Your task to perform on an android device: empty trash in google photos Image 0: 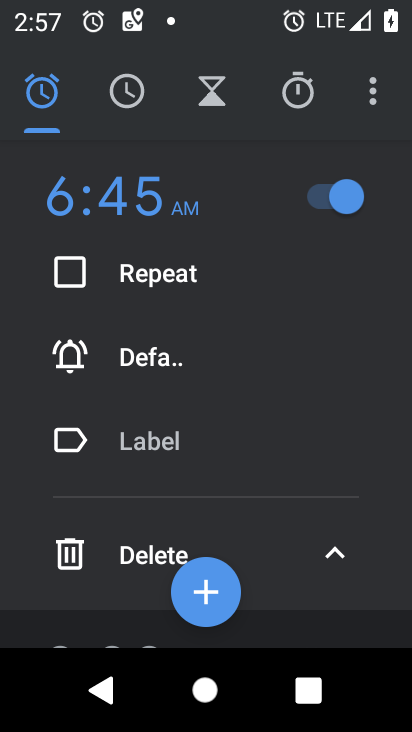
Step 0: press home button
Your task to perform on an android device: empty trash in google photos Image 1: 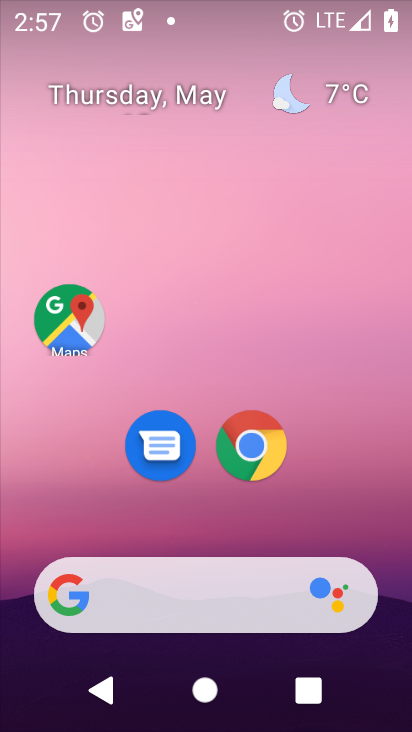
Step 1: drag from (373, 518) to (411, 523)
Your task to perform on an android device: empty trash in google photos Image 2: 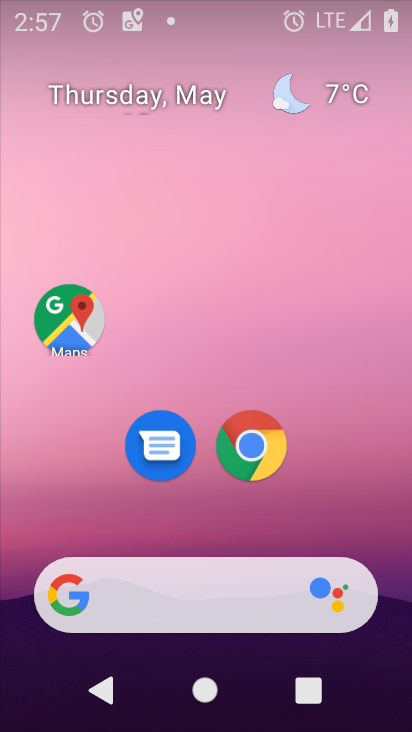
Step 2: drag from (403, 515) to (409, 308)
Your task to perform on an android device: empty trash in google photos Image 3: 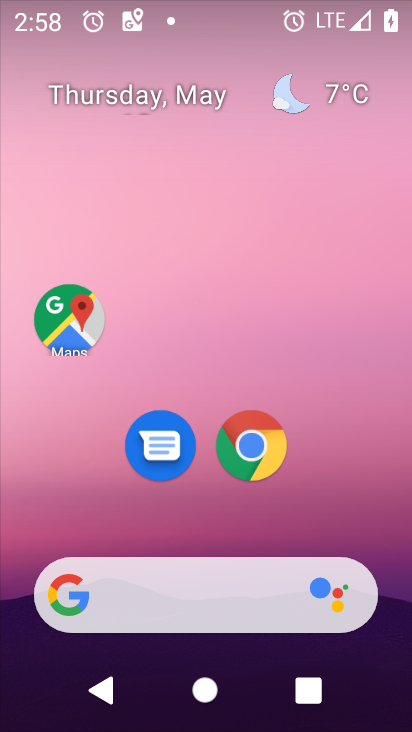
Step 3: drag from (387, 529) to (361, 0)
Your task to perform on an android device: empty trash in google photos Image 4: 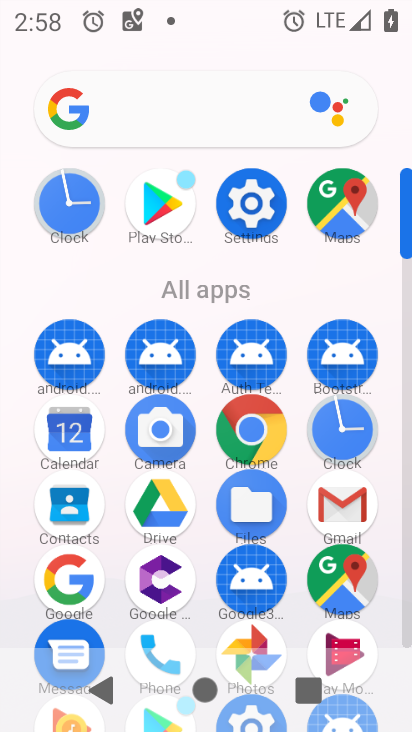
Step 4: drag from (404, 496) to (404, 407)
Your task to perform on an android device: empty trash in google photos Image 5: 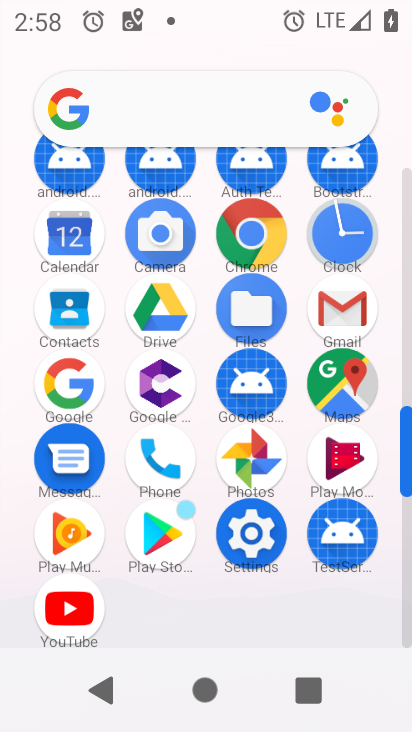
Step 5: click (262, 452)
Your task to perform on an android device: empty trash in google photos Image 6: 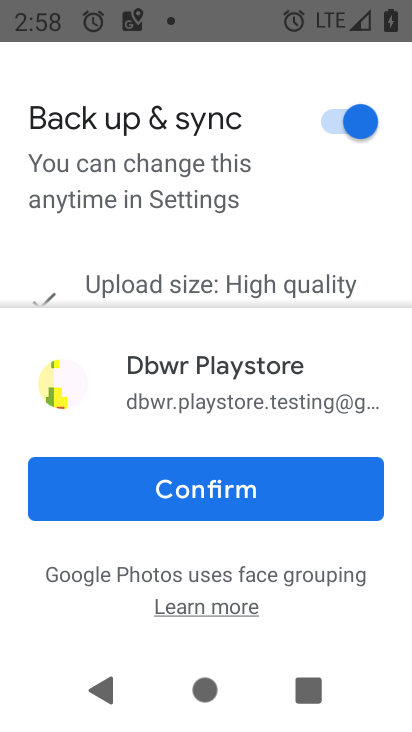
Step 6: click (233, 491)
Your task to perform on an android device: empty trash in google photos Image 7: 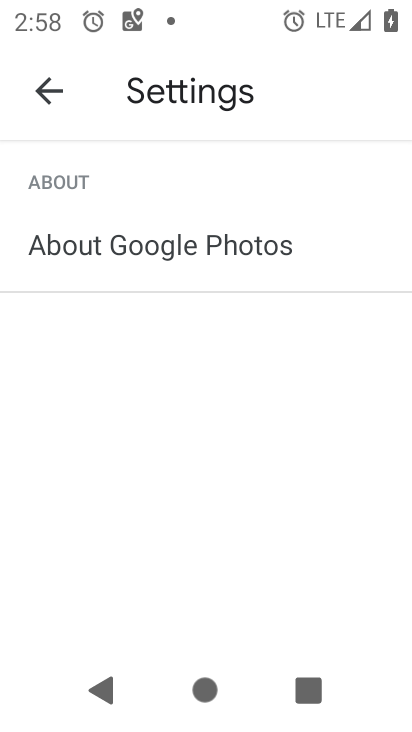
Step 7: click (51, 95)
Your task to perform on an android device: empty trash in google photos Image 8: 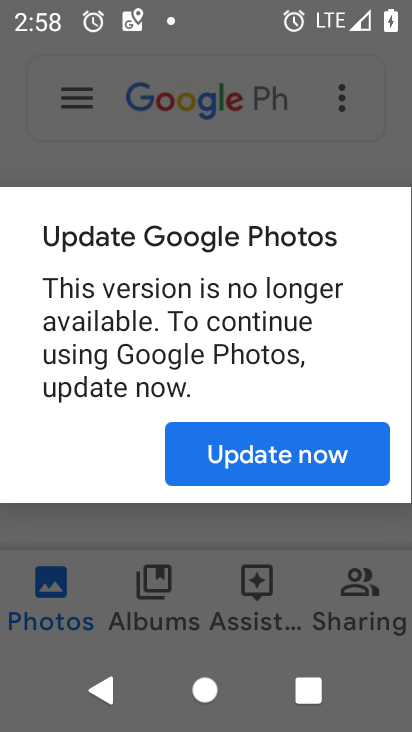
Step 8: click (254, 454)
Your task to perform on an android device: empty trash in google photos Image 9: 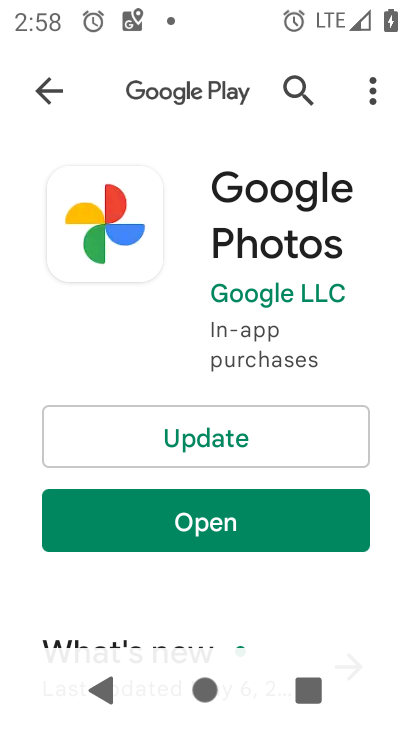
Step 9: click (212, 530)
Your task to perform on an android device: empty trash in google photos Image 10: 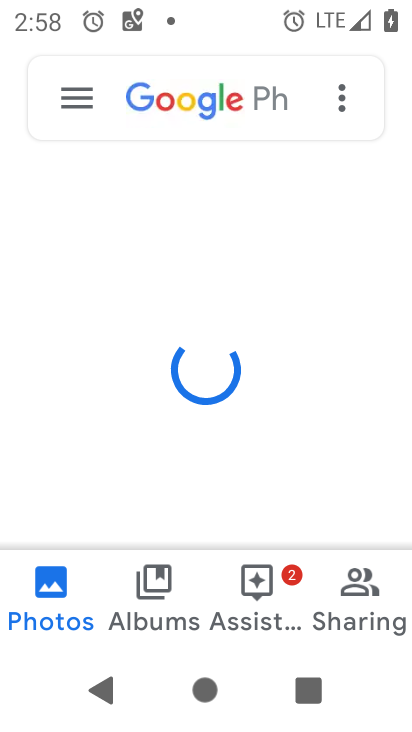
Step 10: click (76, 102)
Your task to perform on an android device: empty trash in google photos Image 11: 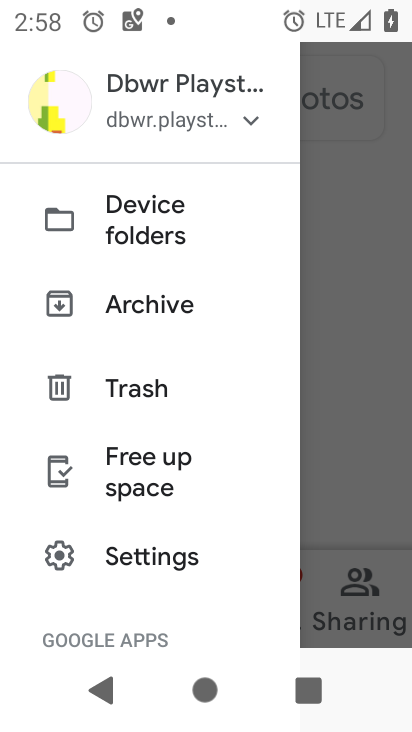
Step 11: click (135, 390)
Your task to perform on an android device: empty trash in google photos Image 12: 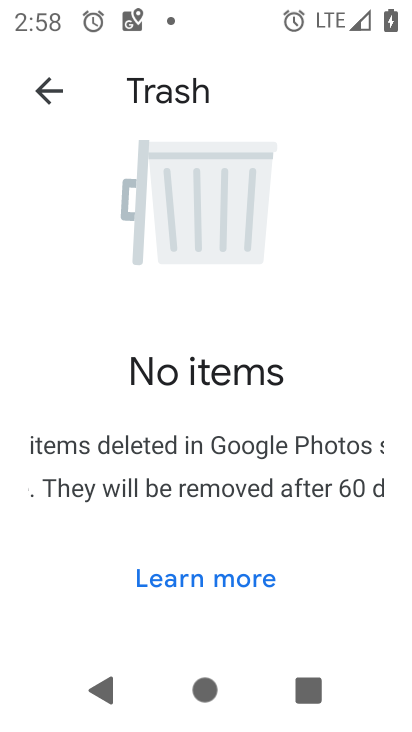
Step 12: task complete